Your task to perform on an android device: Go to display settings Image 0: 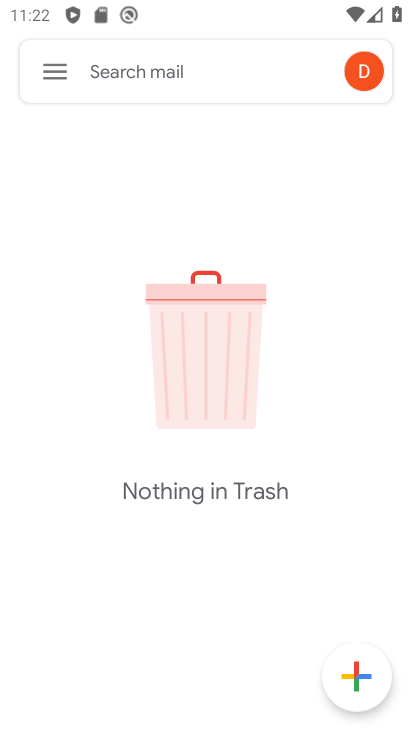
Step 0: press home button
Your task to perform on an android device: Go to display settings Image 1: 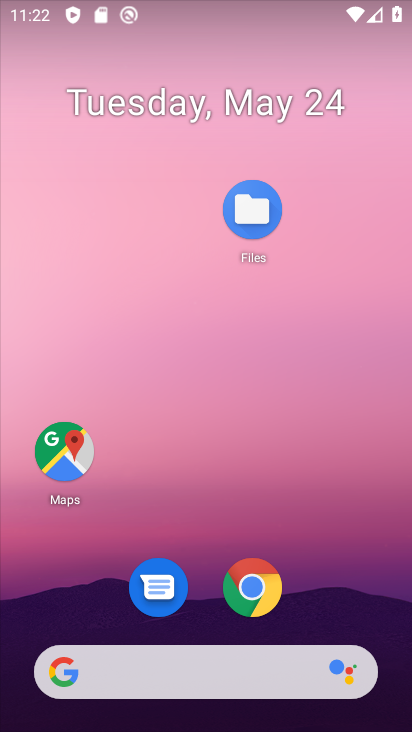
Step 1: drag from (315, 591) to (143, 106)
Your task to perform on an android device: Go to display settings Image 2: 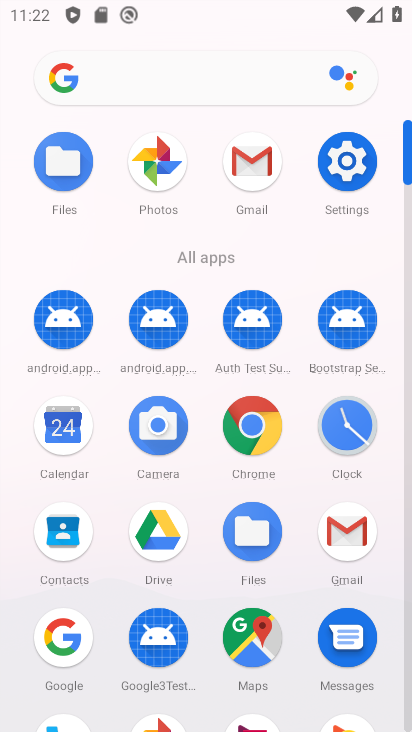
Step 2: click (351, 164)
Your task to perform on an android device: Go to display settings Image 3: 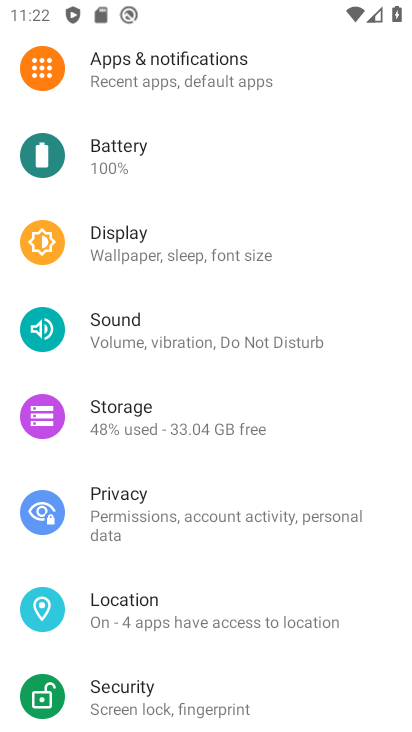
Step 3: click (217, 252)
Your task to perform on an android device: Go to display settings Image 4: 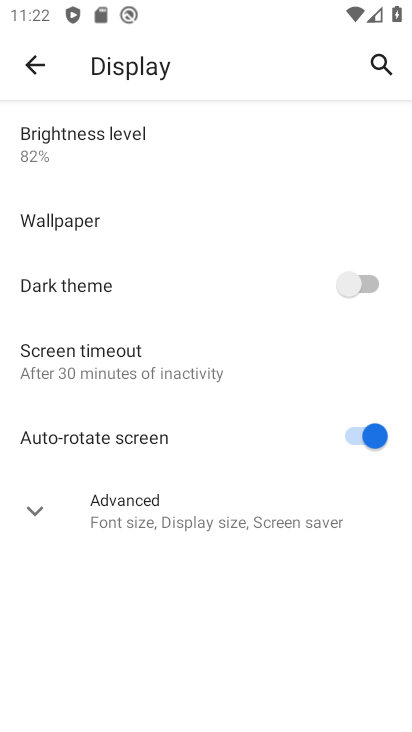
Step 4: click (115, 508)
Your task to perform on an android device: Go to display settings Image 5: 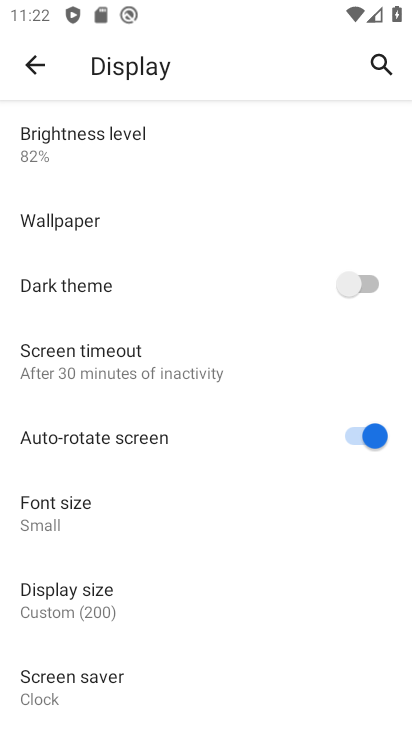
Step 5: task complete